Your task to perform on an android device: Open calendar and show me the first week of next month Image 0: 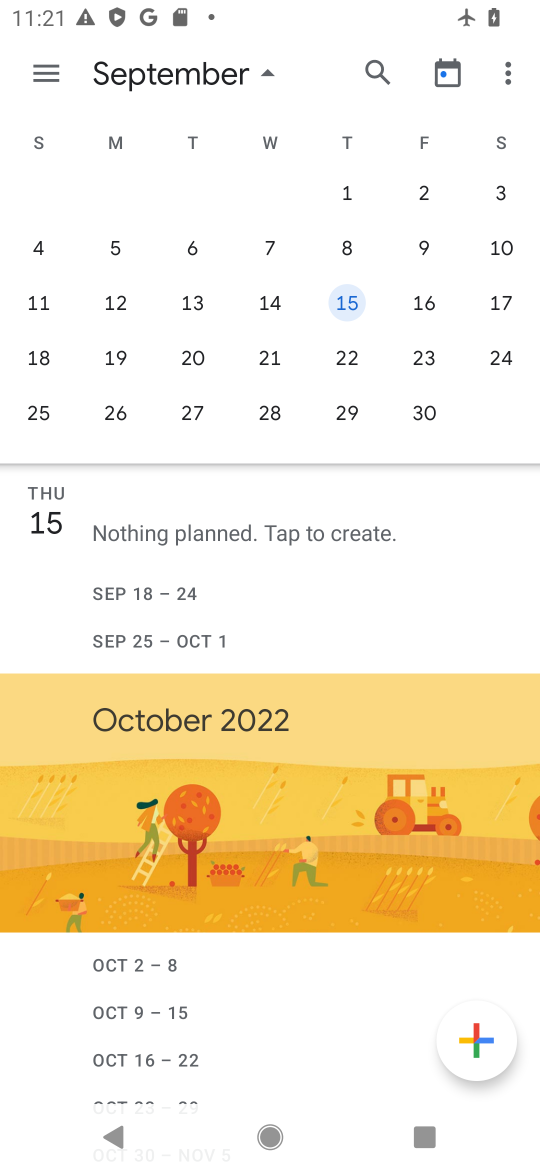
Step 0: press home button
Your task to perform on an android device: Open calendar and show me the first week of next month Image 1: 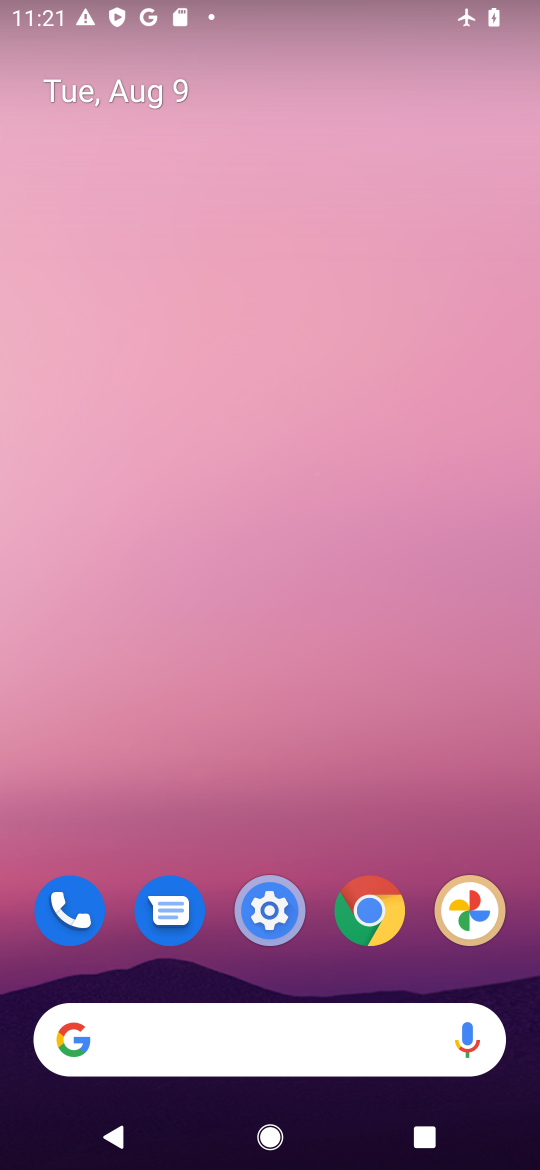
Step 1: drag from (143, 449) to (333, 52)
Your task to perform on an android device: Open calendar and show me the first week of next month Image 2: 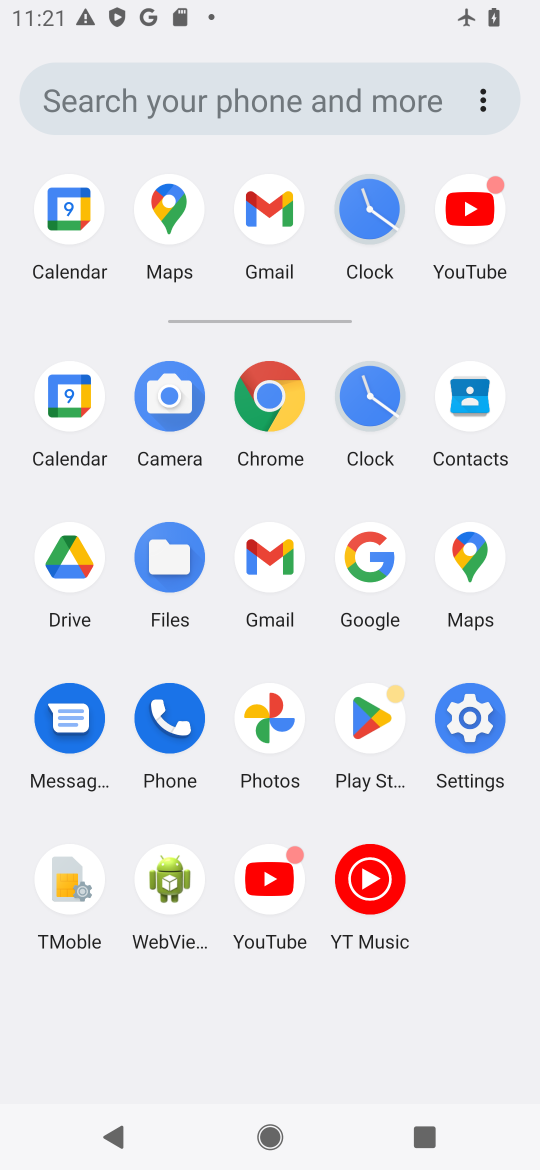
Step 2: click (68, 423)
Your task to perform on an android device: Open calendar and show me the first week of next month Image 3: 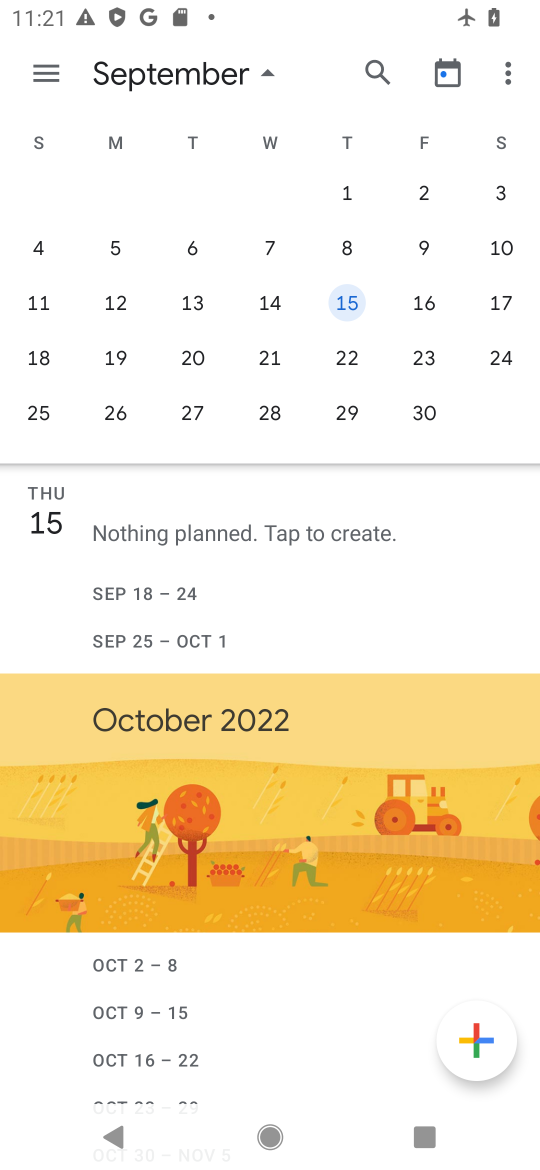
Step 3: click (415, 193)
Your task to perform on an android device: Open calendar and show me the first week of next month Image 4: 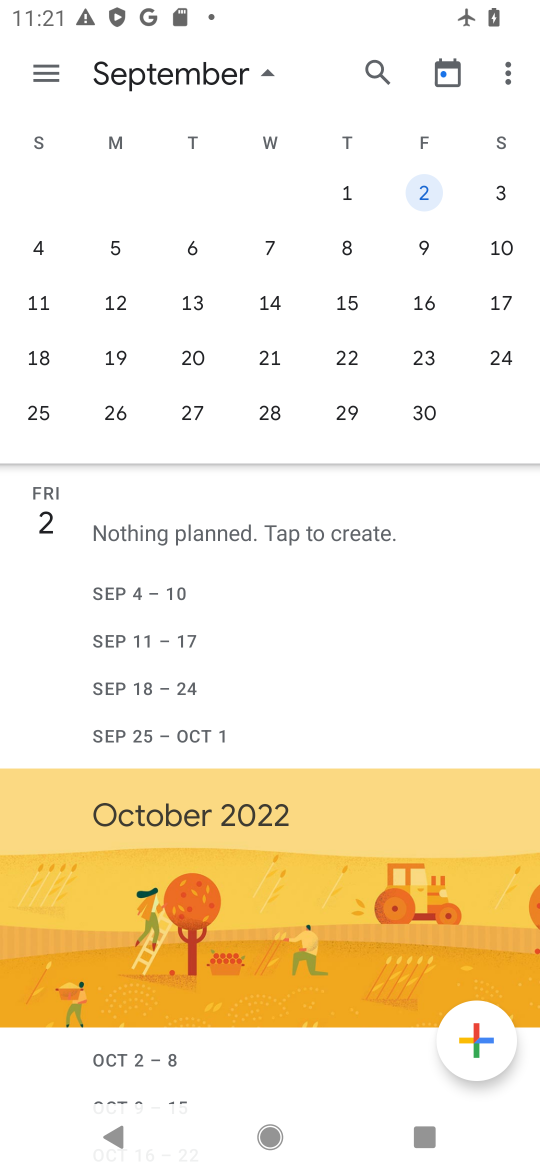
Step 4: click (357, 200)
Your task to perform on an android device: Open calendar and show me the first week of next month Image 5: 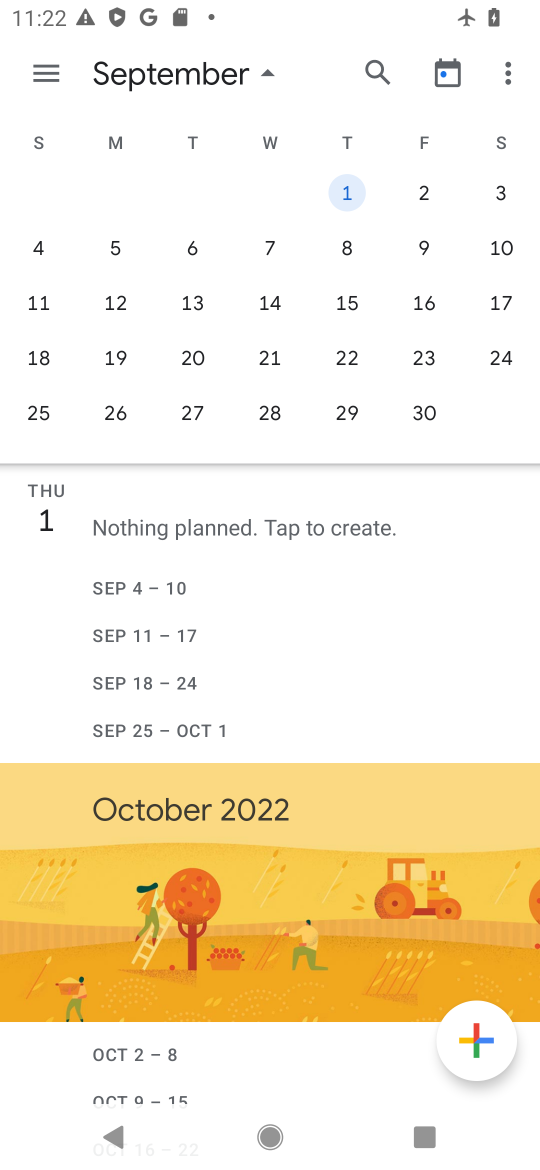
Step 5: click (483, 195)
Your task to perform on an android device: Open calendar and show me the first week of next month Image 6: 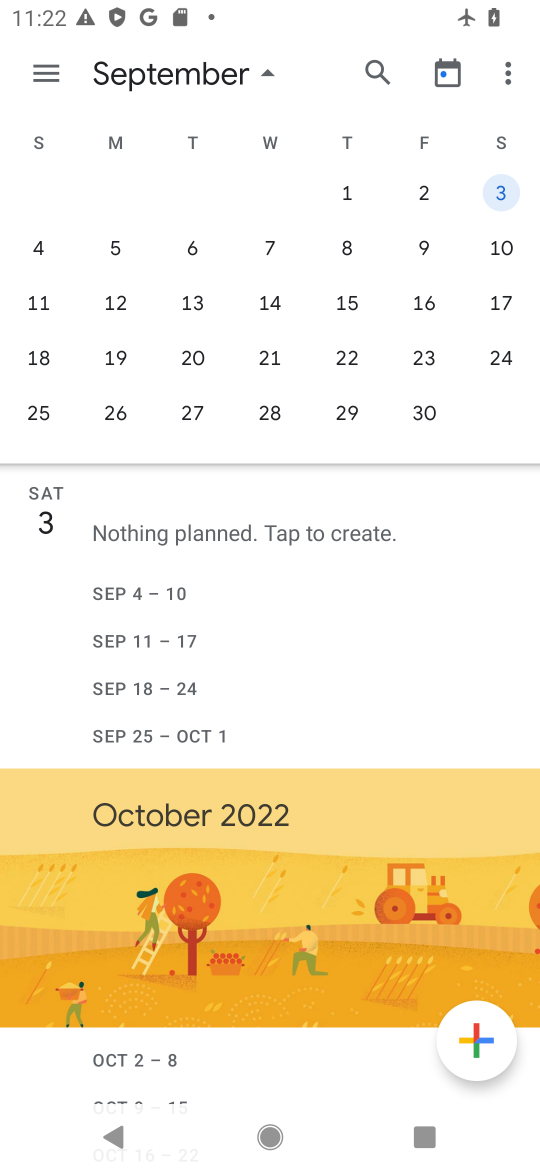
Step 6: task complete